Your task to perform on an android device: Open calendar and show me the fourth week of next month Image 0: 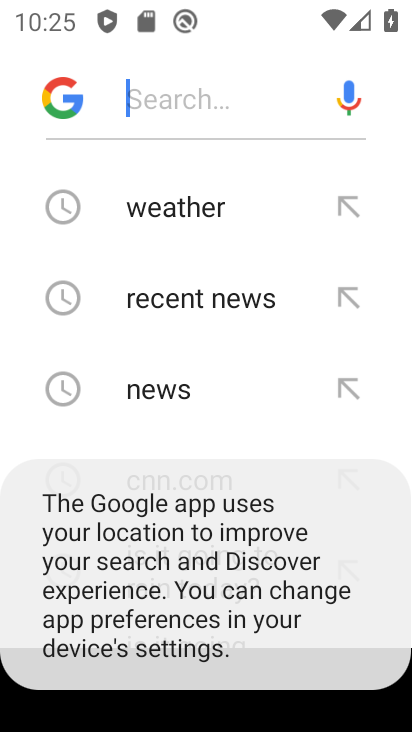
Step 0: press home button
Your task to perform on an android device: Open calendar and show me the fourth week of next month Image 1: 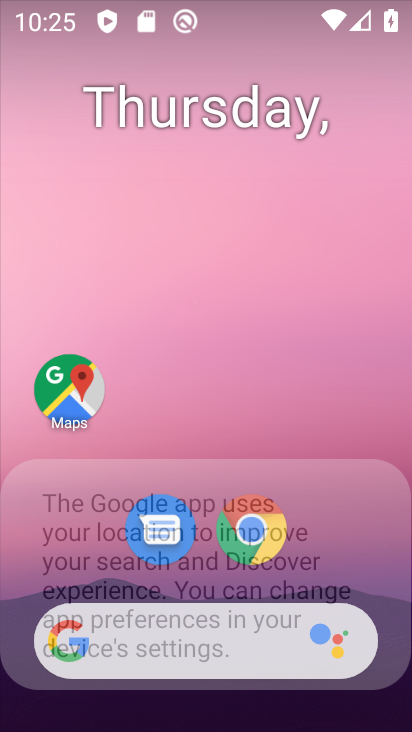
Step 1: click (320, 422)
Your task to perform on an android device: Open calendar and show me the fourth week of next month Image 2: 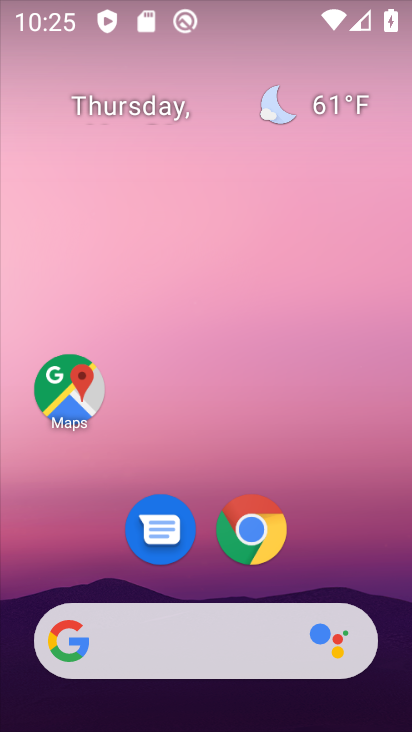
Step 2: drag from (355, 532) to (285, 36)
Your task to perform on an android device: Open calendar and show me the fourth week of next month Image 3: 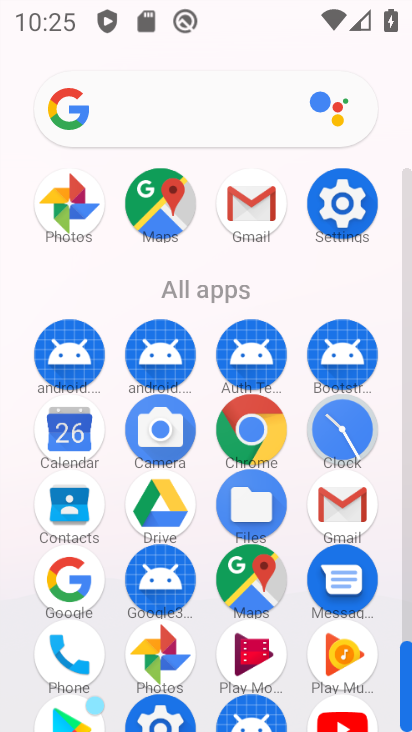
Step 3: click (63, 427)
Your task to perform on an android device: Open calendar and show me the fourth week of next month Image 4: 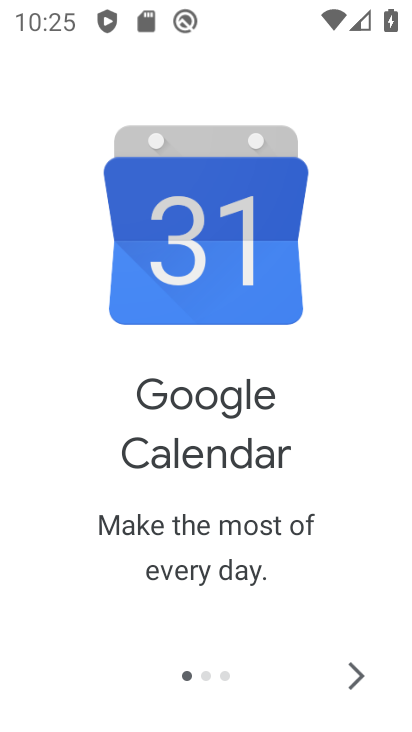
Step 4: click (348, 649)
Your task to perform on an android device: Open calendar and show me the fourth week of next month Image 5: 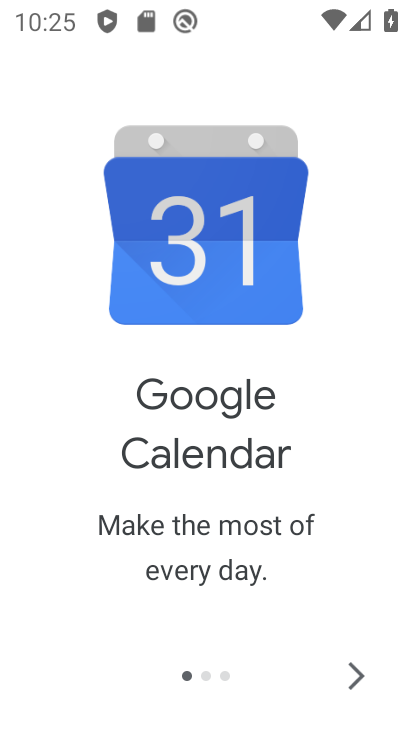
Step 5: click (348, 649)
Your task to perform on an android device: Open calendar and show me the fourth week of next month Image 6: 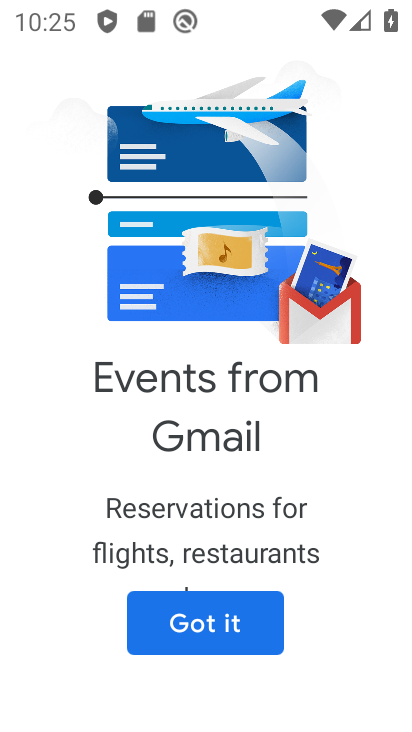
Step 6: click (348, 649)
Your task to perform on an android device: Open calendar and show me the fourth week of next month Image 7: 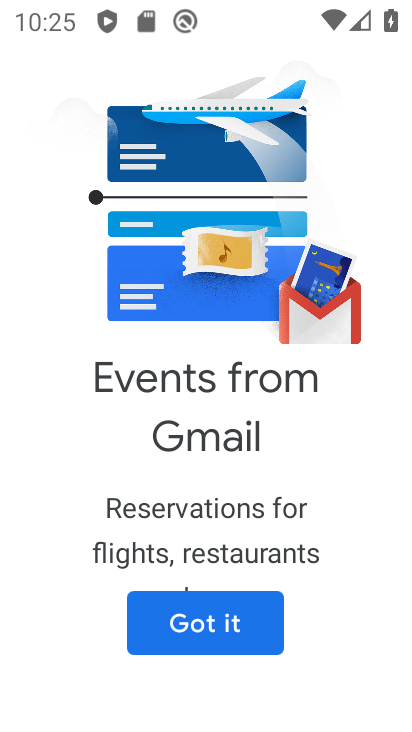
Step 7: click (348, 649)
Your task to perform on an android device: Open calendar and show me the fourth week of next month Image 8: 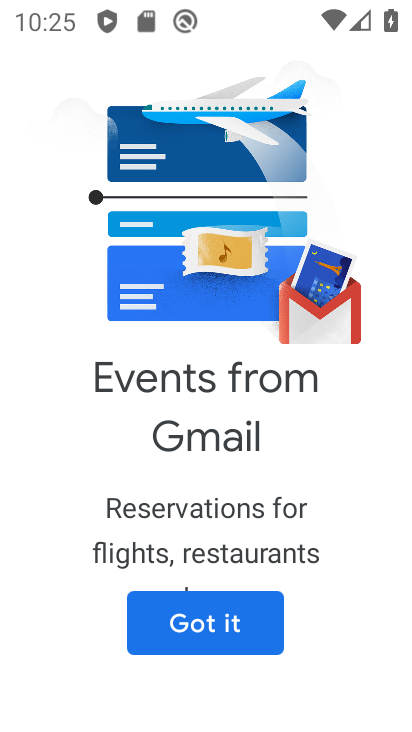
Step 8: click (243, 641)
Your task to perform on an android device: Open calendar and show me the fourth week of next month Image 9: 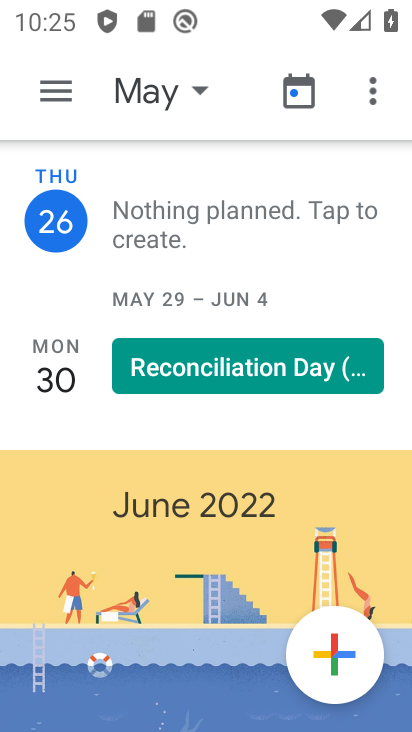
Step 9: click (169, 105)
Your task to perform on an android device: Open calendar and show me the fourth week of next month Image 10: 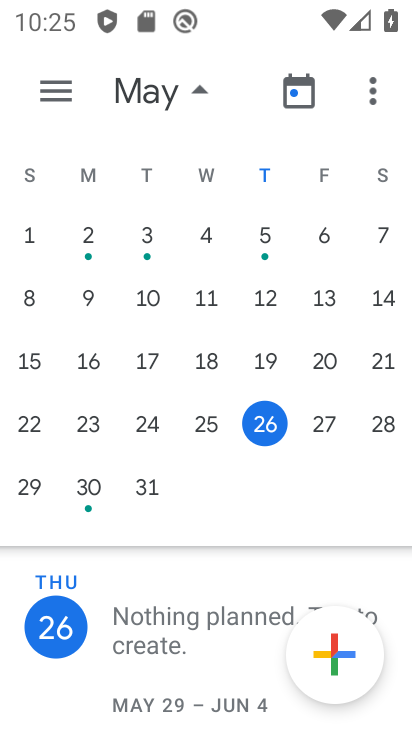
Step 10: click (405, 437)
Your task to perform on an android device: Open calendar and show me the fourth week of next month Image 11: 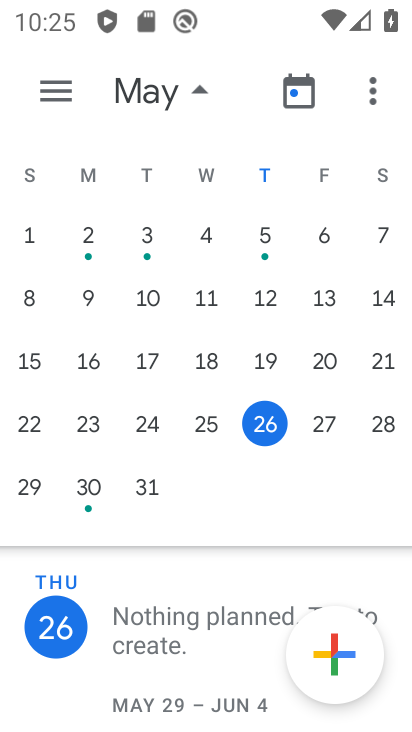
Step 11: drag from (395, 432) to (8, 377)
Your task to perform on an android device: Open calendar and show me the fourth week of next month Image 12: 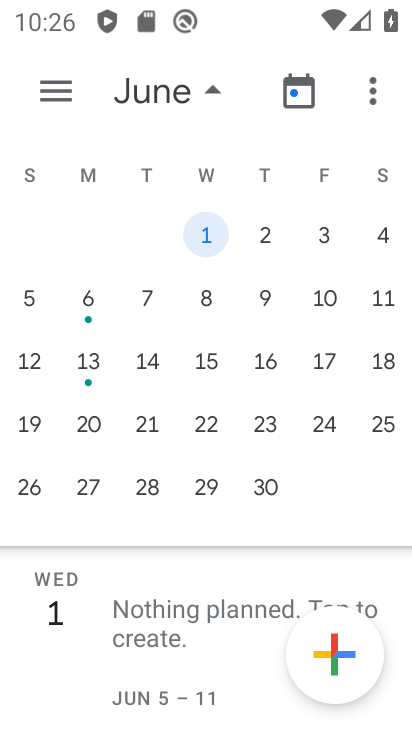
Step 12: click (212, 415)
Your task to perform on an android device: Open calendar and show me the fourth week of next month Image 13: 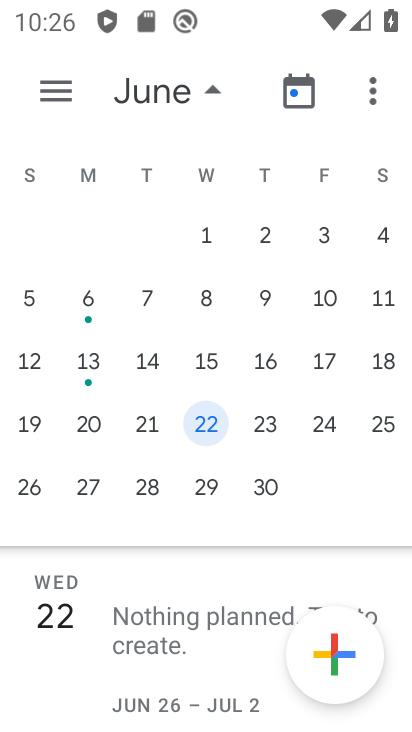
Step 13: task complete